Your task to perform on an android device: Open calendar and show me the second week of next month Image 0: 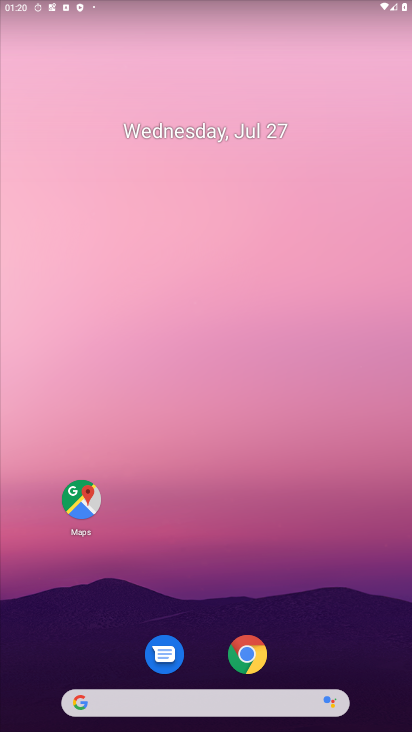
Step 0: drag from (311, 626) to (393, 56)
Your task to perform on an android device: Open calendar and show me the second week of next month Image 1: 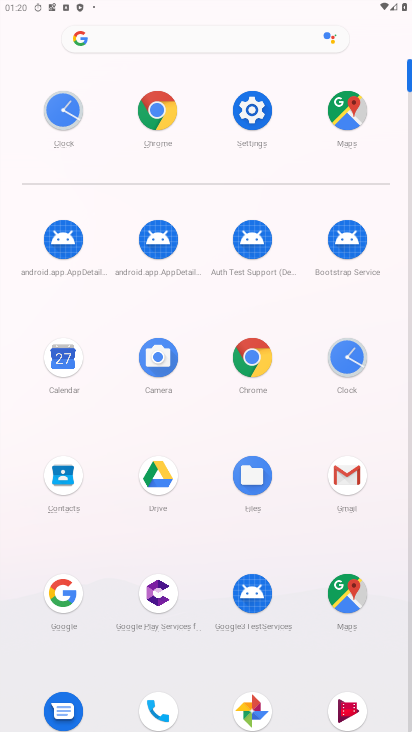
Step 1: click (58, 350)
Your task to perform on an android device: Open calendar and show me the second week of next month Image 2: 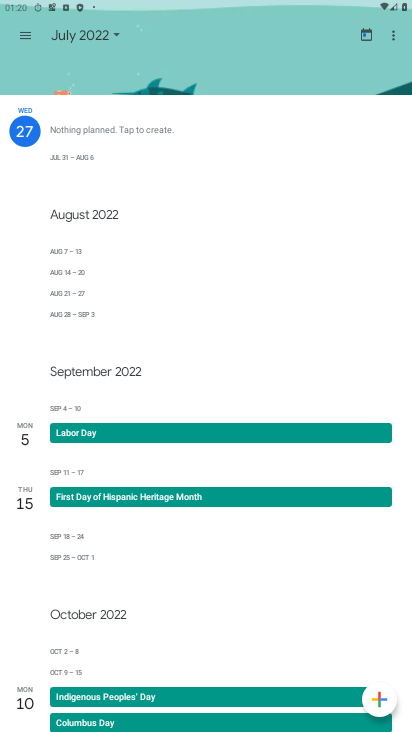
Step 2: click (124, 26)
Your task to perform on an android device: Open calendar and show me the second week of next month Image 3: 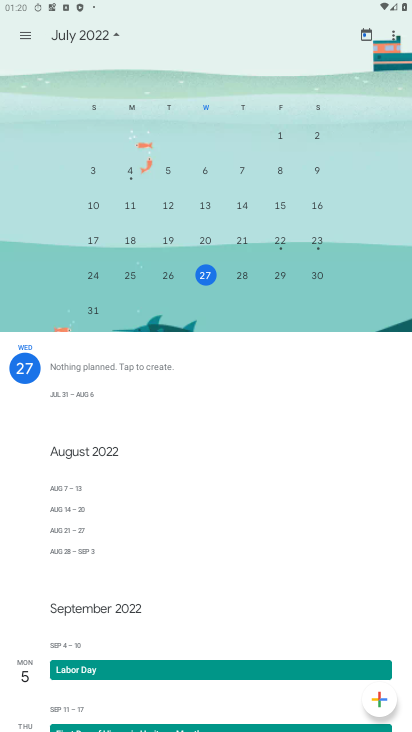
Step 3: drag from (348, 256) to (86, 250)
Your task to perform on an android device: Open calendar and show me the second week of next month Image 4: 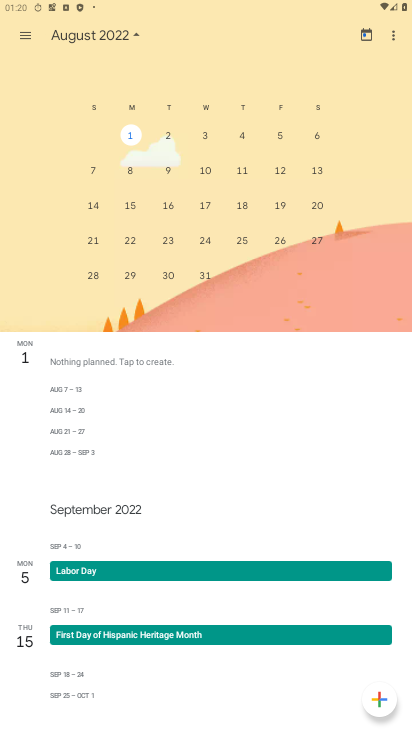
Step 4: click (208, 172)
Your task to perform on an android device: Open calendar and show me the second week of next month Image 5: 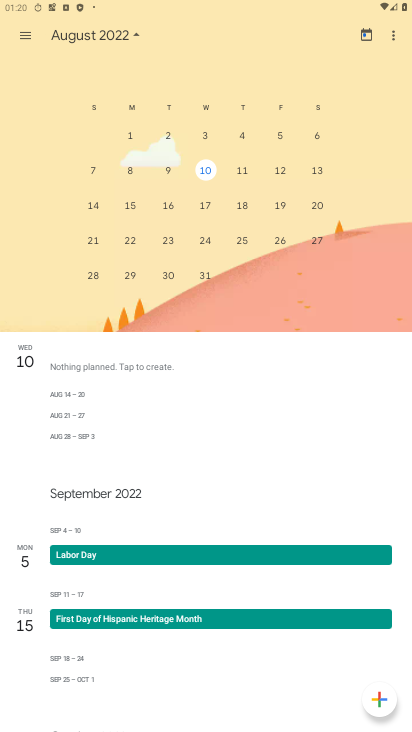
Step 5: task complete